Your task to perform on an android device: all mails in gmail Image 0: 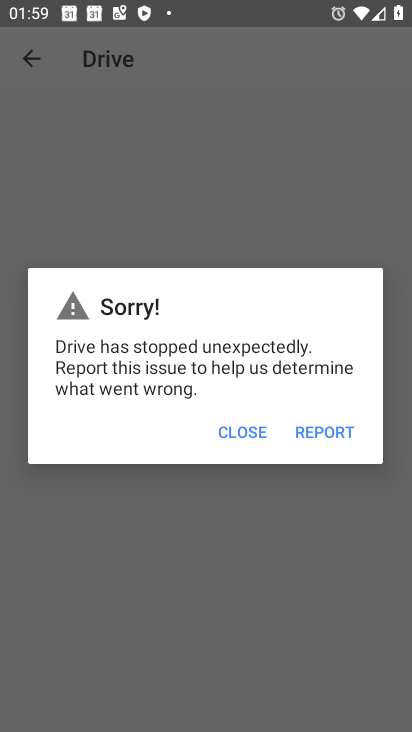
Step 0: press home button
Your task to perform on an android device: all mails in gmail Image 1: 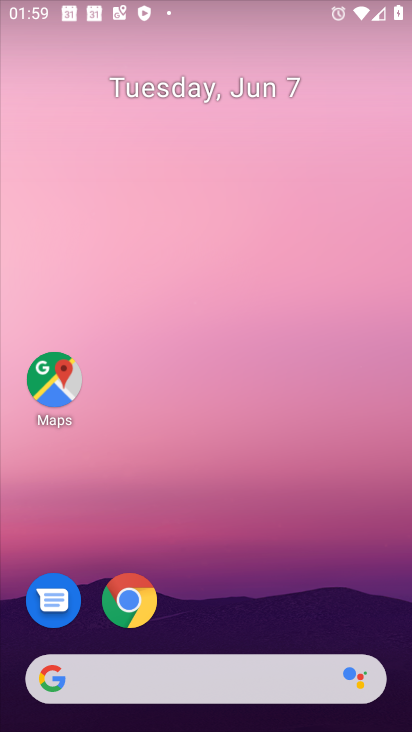
Step 1: drag from (210, 724) to (210, 107)
Your task to perform on an android device: all mails in gmail Image 2: 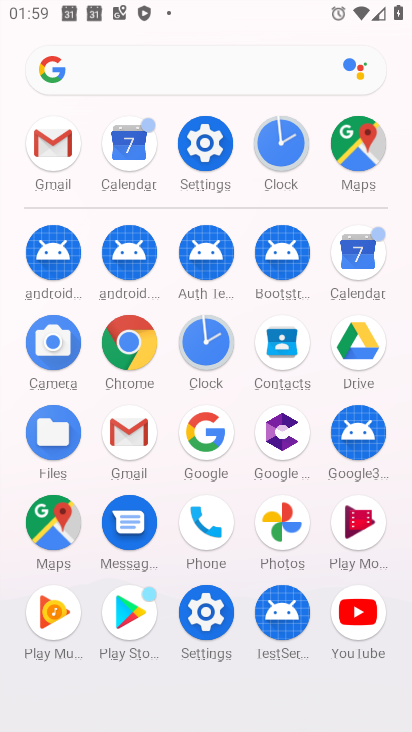
Step 2: click (135, 433)
Your task to perform on an android device: all mails in gmail Image 3: 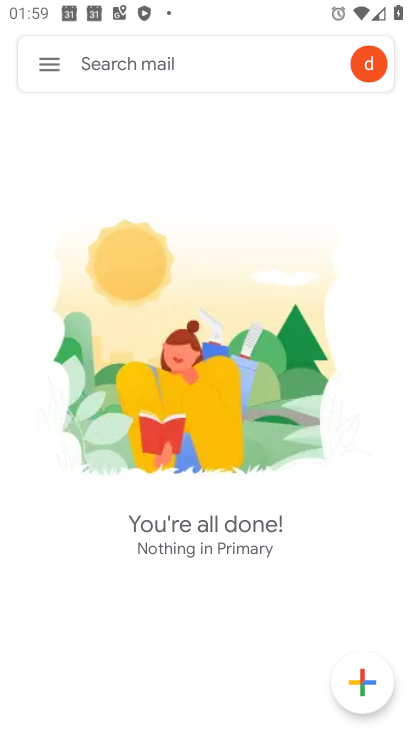
Step 3: click (47, 60)
Your task to perform on an android device: all mails in gmail Image 4: 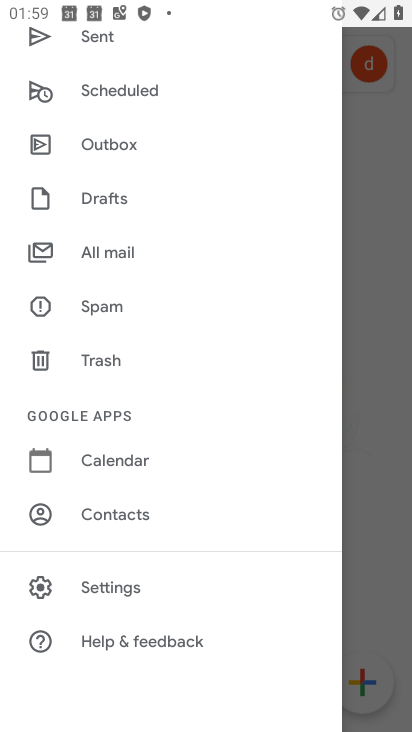
Step 4: click (105, 248)
Your task to perform on an android device: all mails in gmail Image 5: 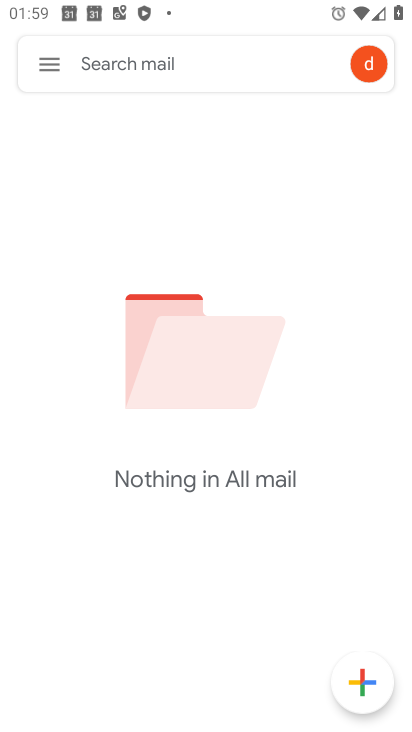
Step 5: task complete